Your task to perform on an android device: Search for Italian restaurants on Maps Image 0: 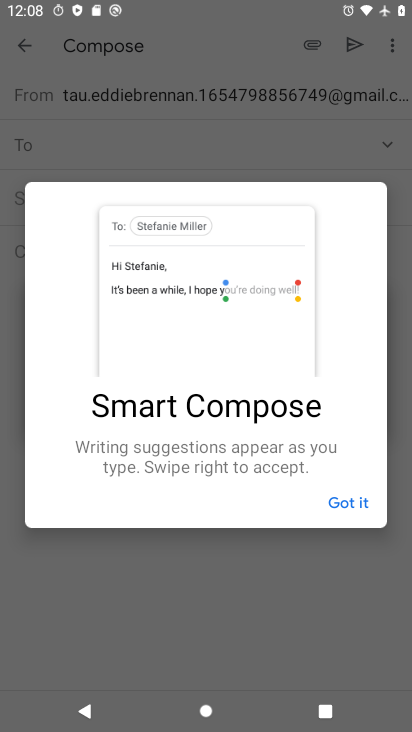
Step 0: press home button
Your task to perform on an android device: Search for Italian restaurants on Maps Image 1: 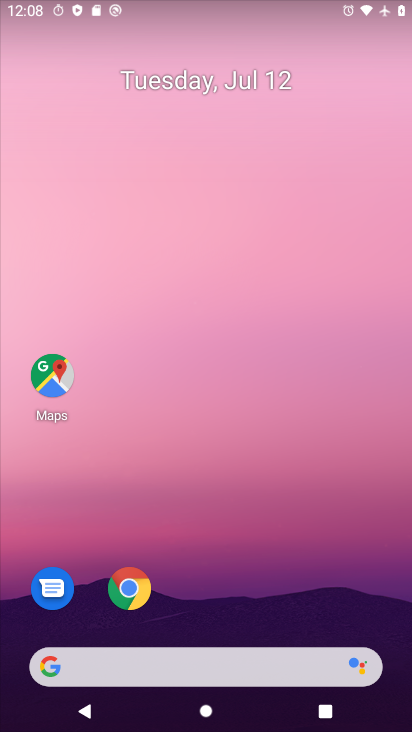
Step 1: click (51, 373)
Your task to perform on an android device: Search for Italian restaurants on Maps Image 2: 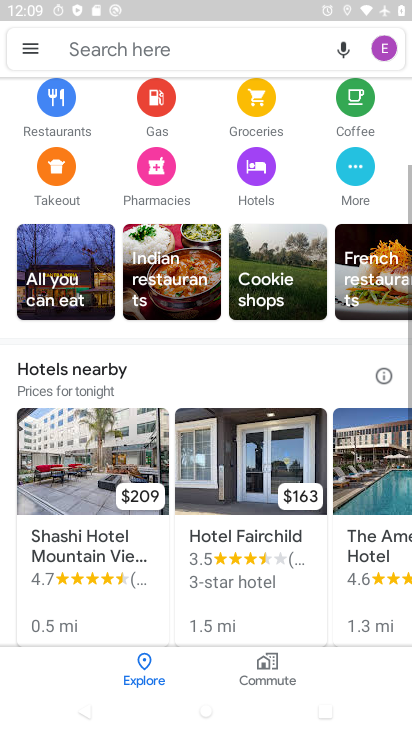
Step 2: click (241, 47)
Your task to perform on an android device: Search for Italian restaurants on Maps Image 3: 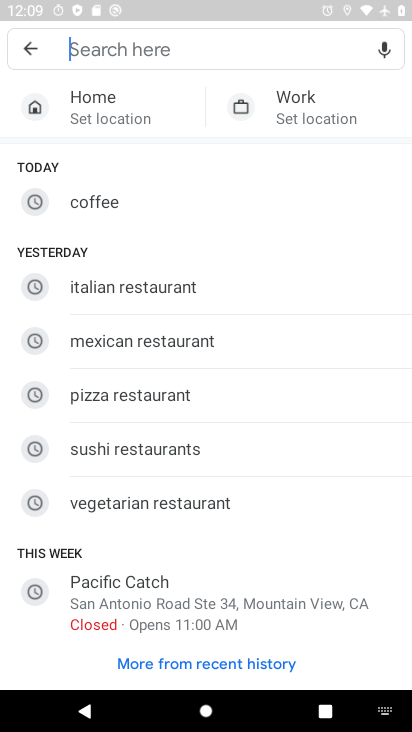
Step 3: click (151, 285)
Your task to perform on an android device: Search for Italian restaurants on Maps Image 4: 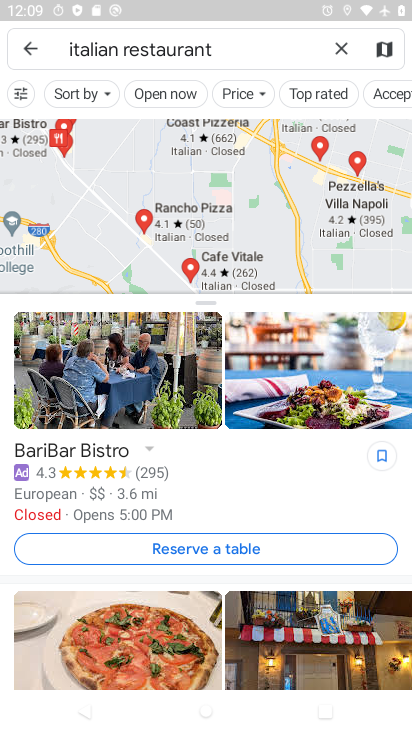
Step 4: task complete